Your task to perform on an android device: Search for flights from NYC to Sydney Image 0: 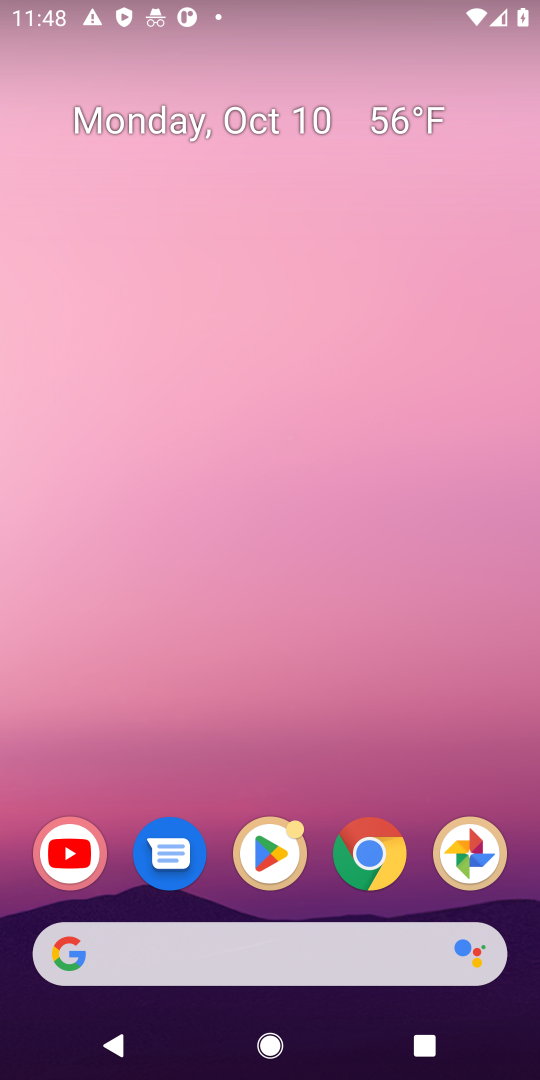
Step 0: drag from (299, 792) to (213, 39)
Your task to perform on an android device: Search for flights from NYC to Sydney Image 1: 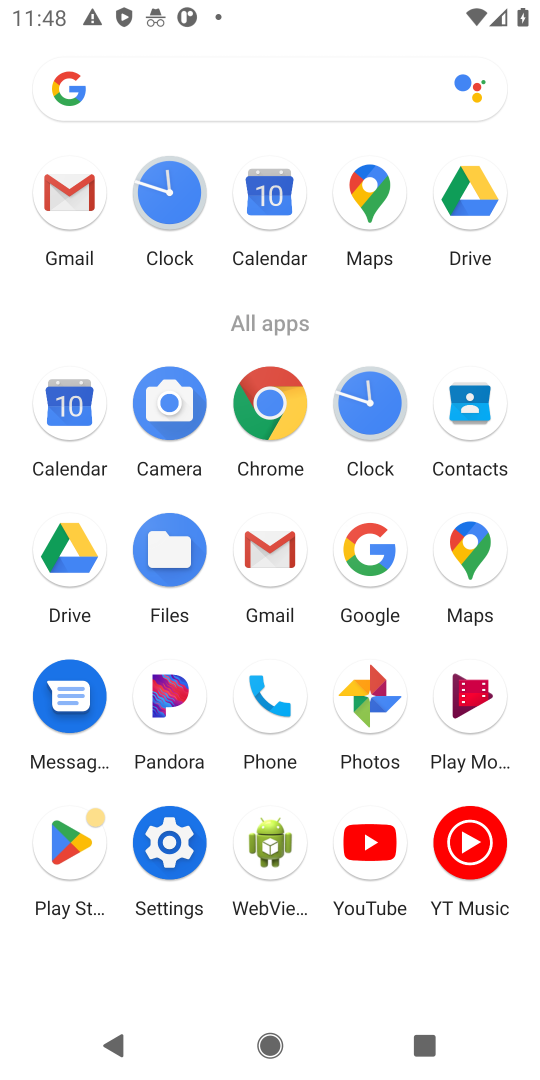
Step 1: click (261, 395)
Your task to perform on an android device: Search for flights from NYC to Sydney Image 2: 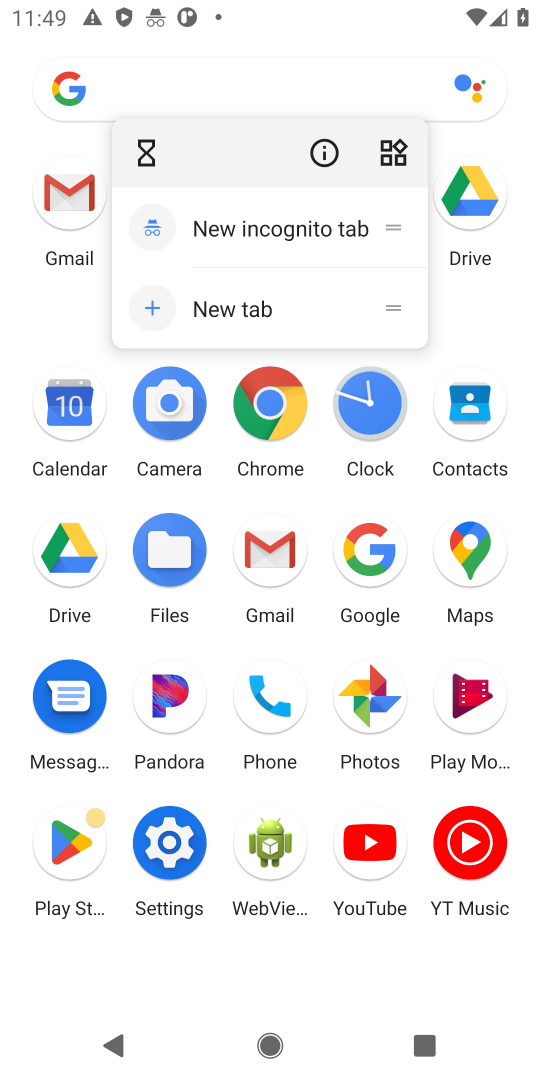
Step 2: click (270, 417)
Your task to perform on an android device: Search for flights from NYC to Sydney Image 3: 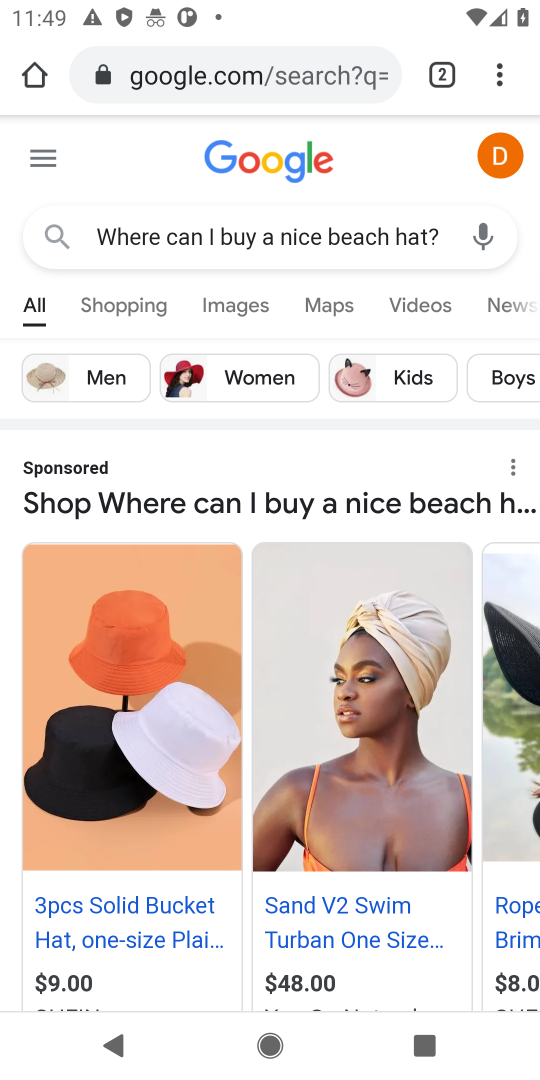
Step 3: click (277, 81)
Your task to perform on an android device: Search for flights from NYC to Sydney Image 4: 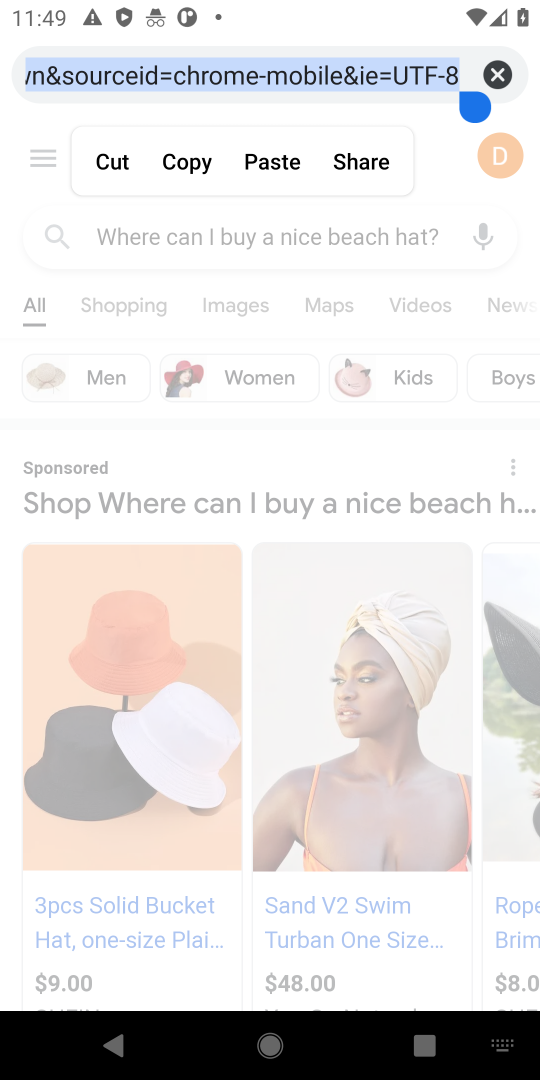
Step 4: click (503, 65)
Your task to perform on an android device: Search for flights from NYC to Sydney Image 5: 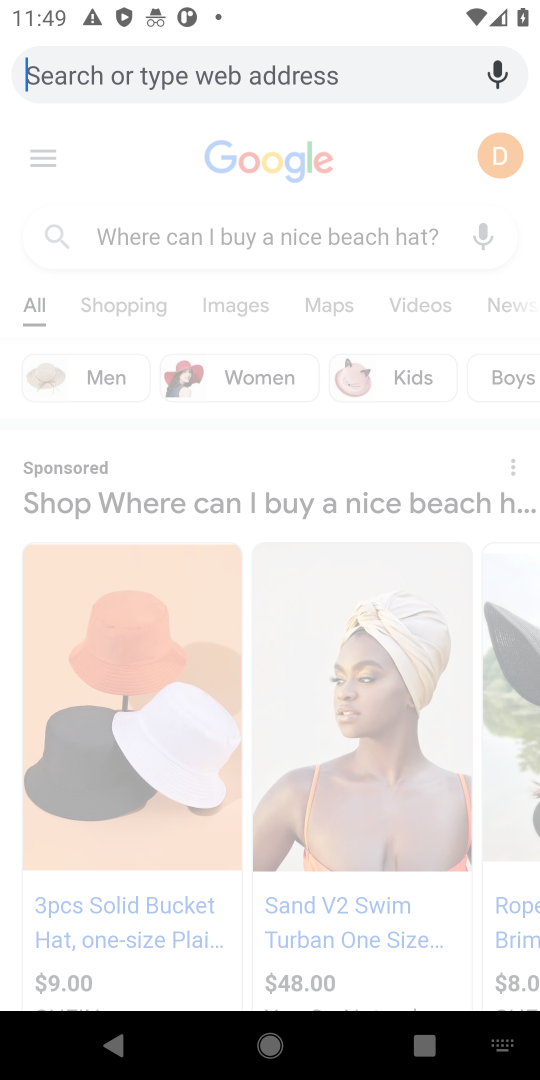
Step 5: type "Search for flights from NYC to Sydney"
Your task to perform on an android device: Search for flights from NYC to Sydney Image 6: 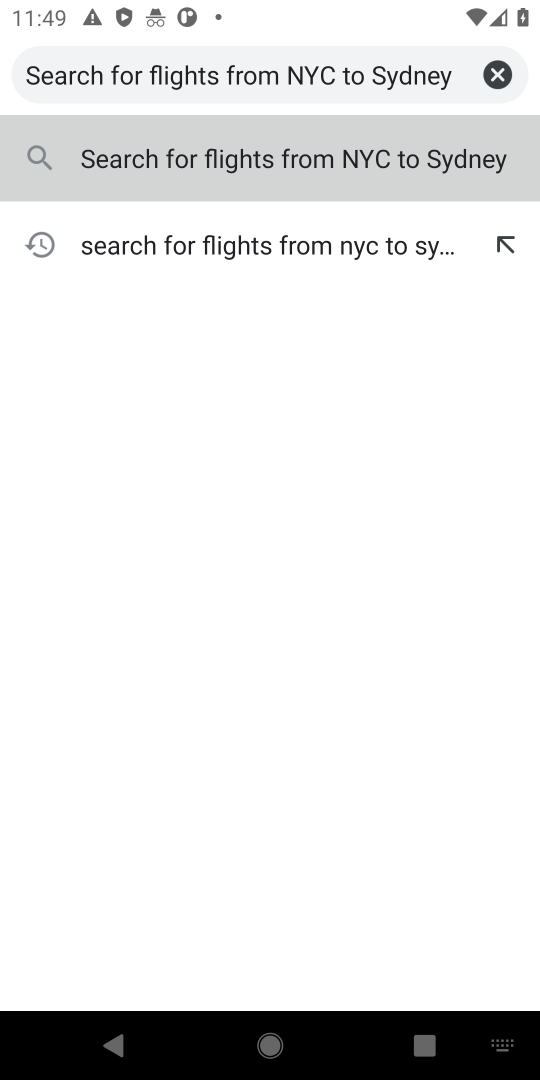
Step 6: click (259, 162)
Your task to perform on an android device: Search for flights from NYC to Sydney Image 7: 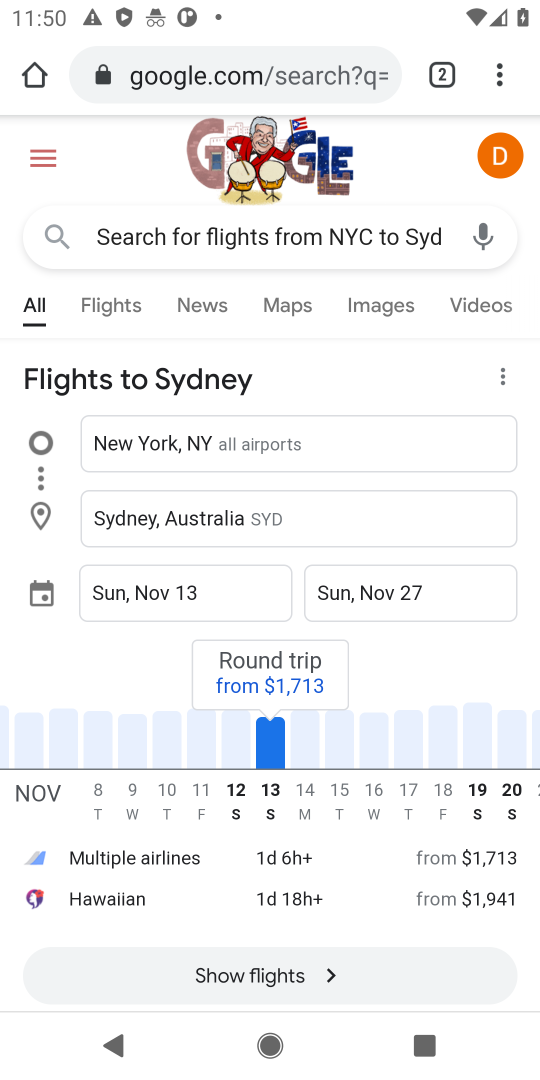
Step 7: task complete